Your task to perform on an android device: Go to calendar. Show me events next week Image 0: 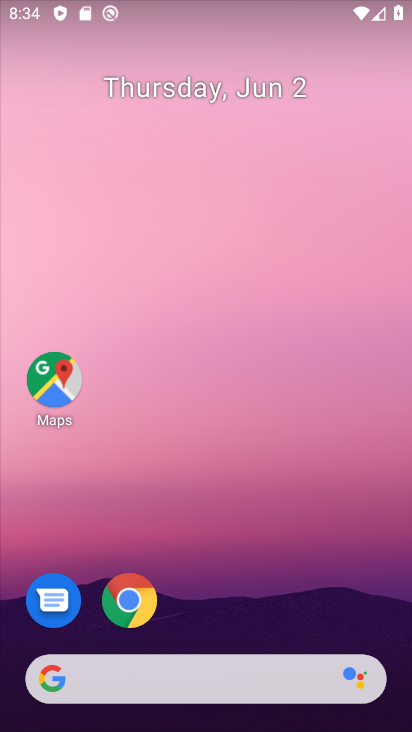
Step 0: drag from (204, 541) to (241, 0)
Your task to perform on an android device: Go to calendar. Show me events next week Image 1: 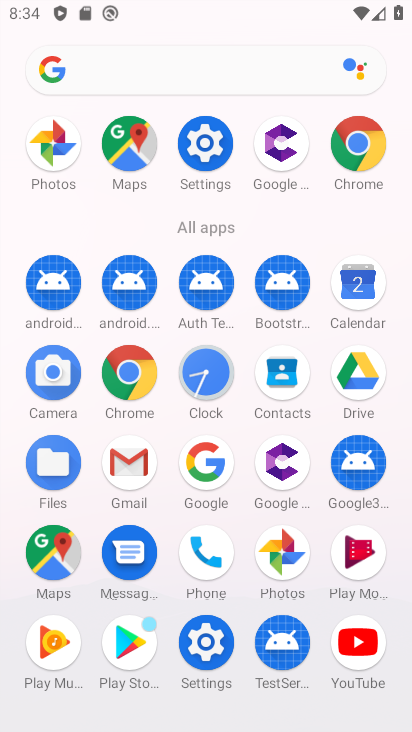
Step 1: click (360, 300)
Your task to perform on an android device: Go to calendar. Show me events next week Image 2: 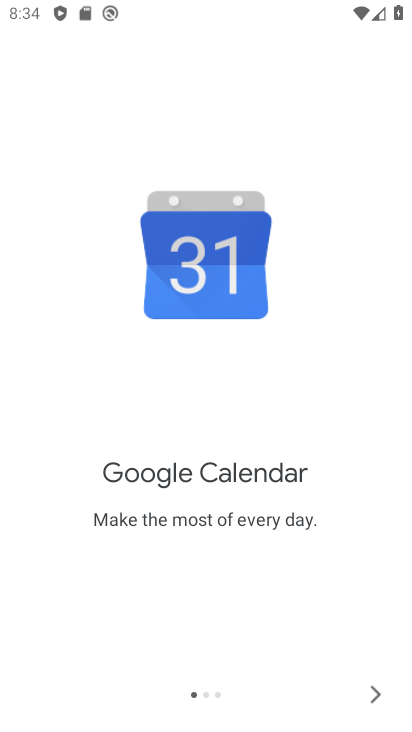
Step 2: click (369, 696)
Your task to perform on an android device: Go to calendar. Show me events next week Image 3: 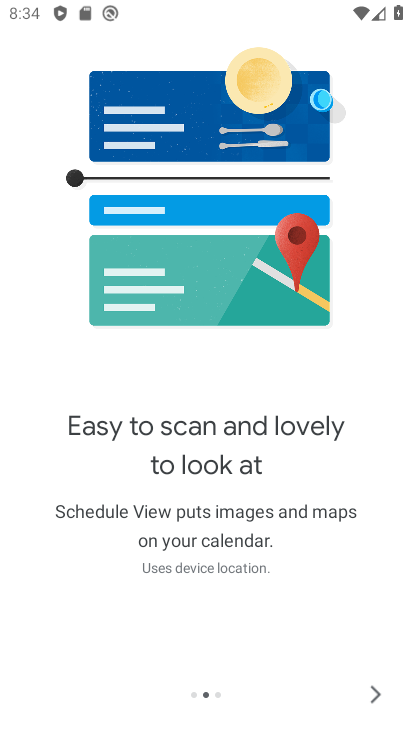
Step 3: click (369, 696)
Your task to perform on an android device: Go to calendar. Show me events next week Image 4: 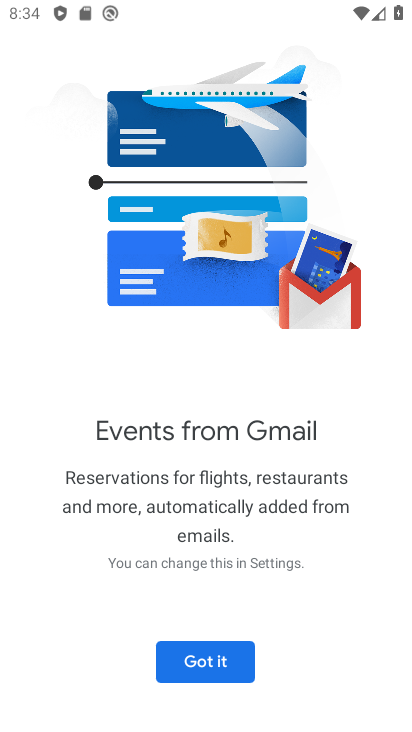
Step 4: click (369, 696)
Your task to perform on an android device: Go to calendar. Show me events next week Image 5: 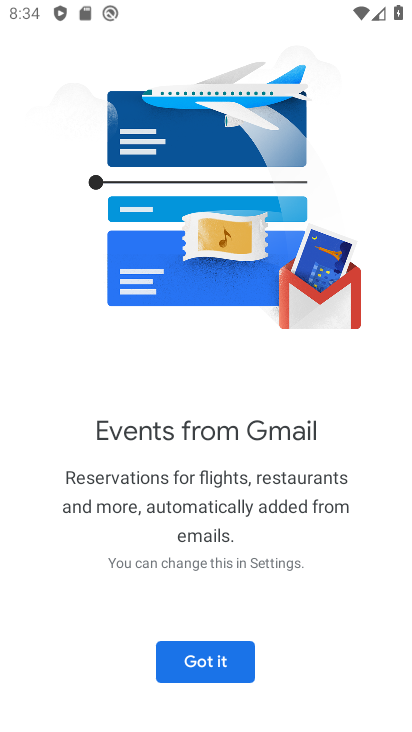
Step 5: click (246, 659)
Your task to perform on an android device: Go to calendar. Show me events next week Image 6: 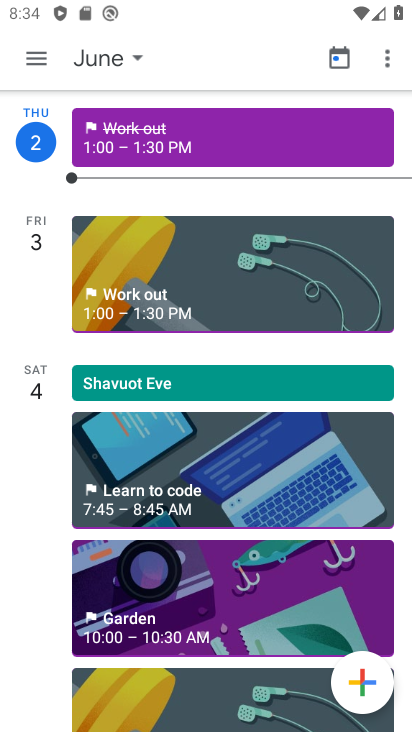
Step 6: click (37, 64)
Your task to perform on an android device: Go to calendar. Show me events next week Image 7: 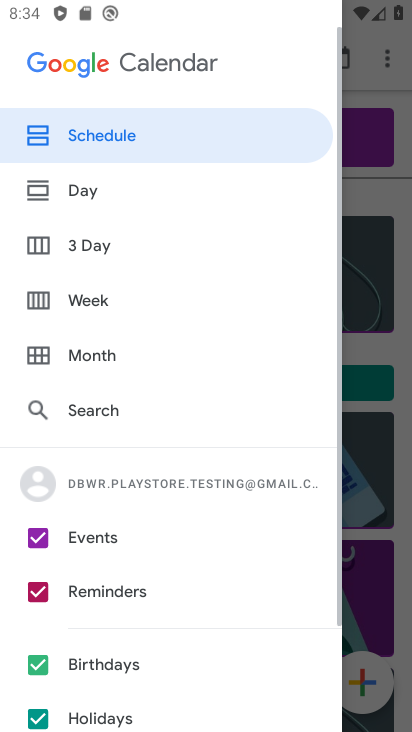
Step 7: click (35, 593)
Your task to perform on an android device: Go to calendar. Show me events next week Image 8: 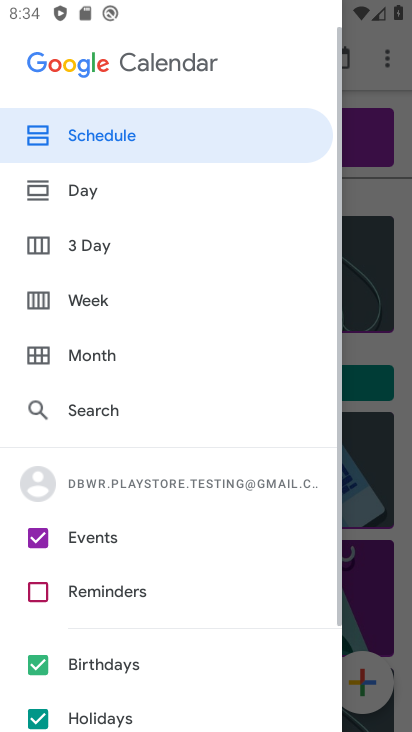
Step 8: click (36, 679)
Your task to perform on an android device: Go to calendar. Show me events next week Image 9: 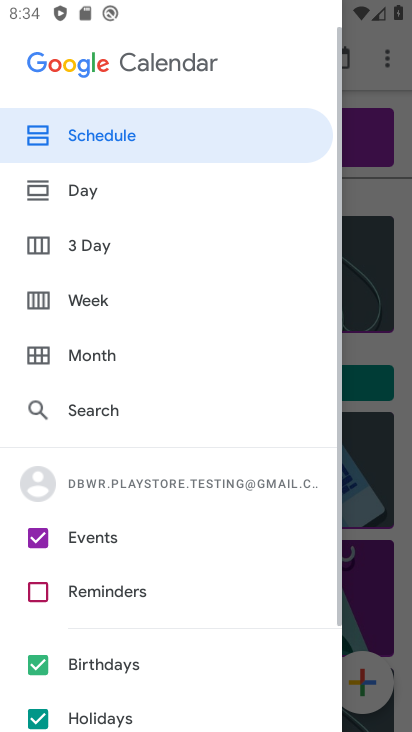
Step 9: click (33, 721)
Your task to perform on an android device: Go to calendar. Show me events next week Image 10: 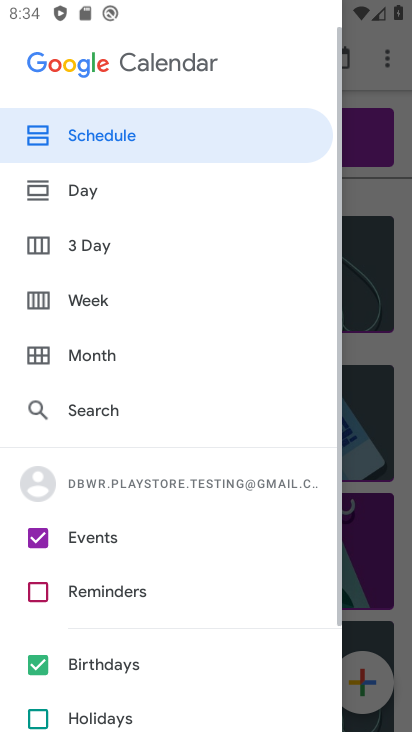
Step 10: click (38, 667)
Your task to perform on an android device: Go to calendar. Show me events next week Image 11: 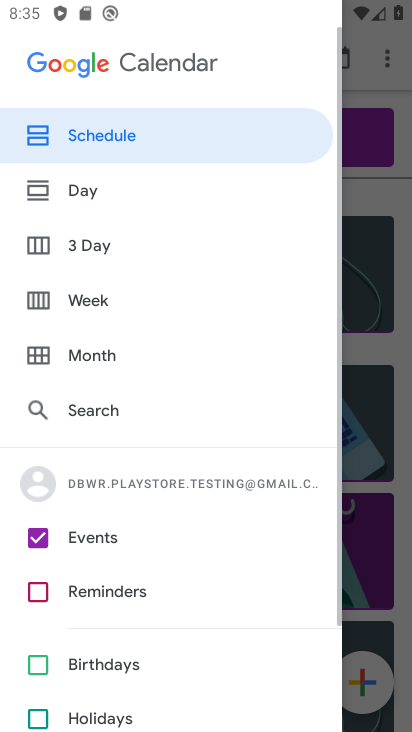
Step 11: click (84, 303)
Your task to perform on an android device: Go to calendar. Show me events next week Image 12: 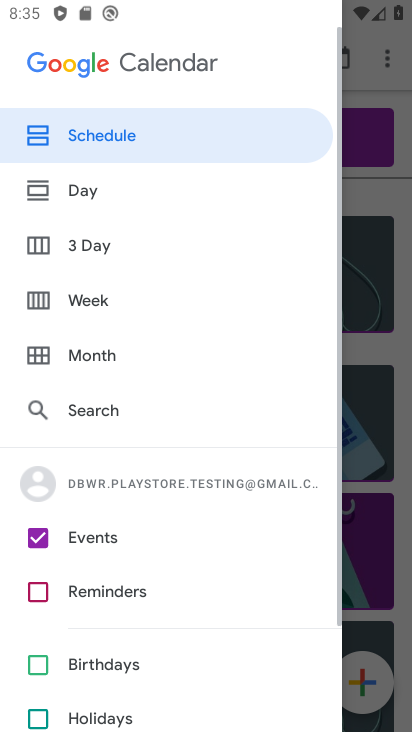
Step 12: click (102, 300)
Your task to perform on an android device: Go to calendar. Show me events next week Image 13: 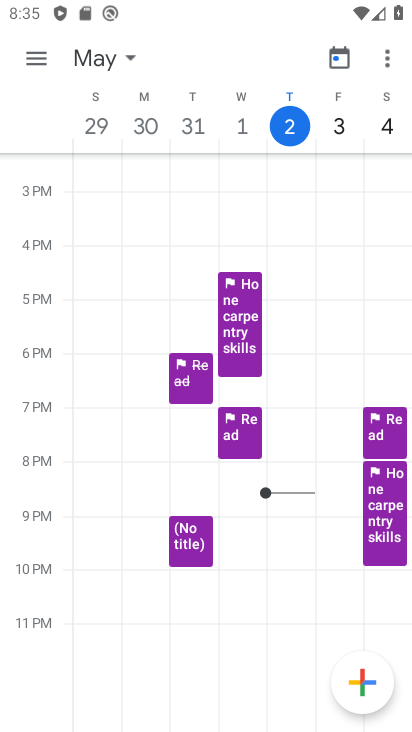
Step 13: task complete